Your task to perform on an android device: open the mobile data screen to see how much data has been used Image 0: 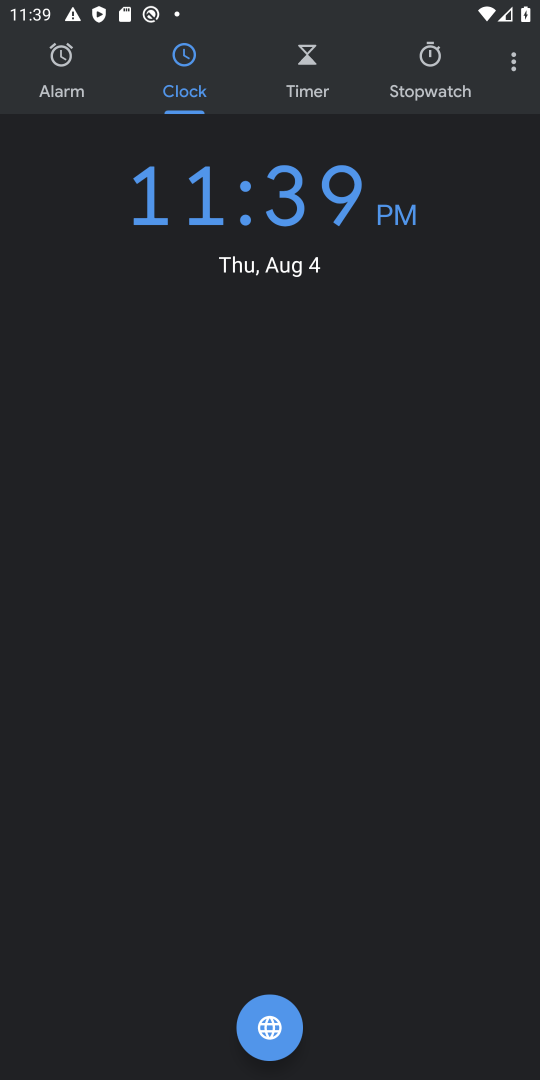
Step 0: press home button
Your task to perform on an android device: open the mobile data screen to see how much data has been used Image 1: 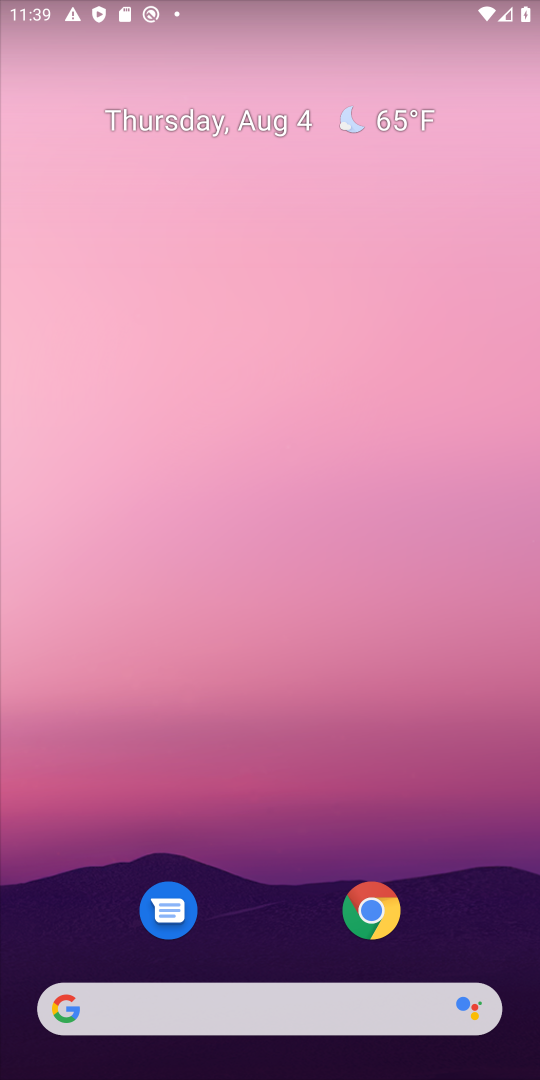
Step 1: drag from (261, 966) to (217, 428)
Your task to perform on an android device: open the mobile data screen to see how much data has been used Image 2: 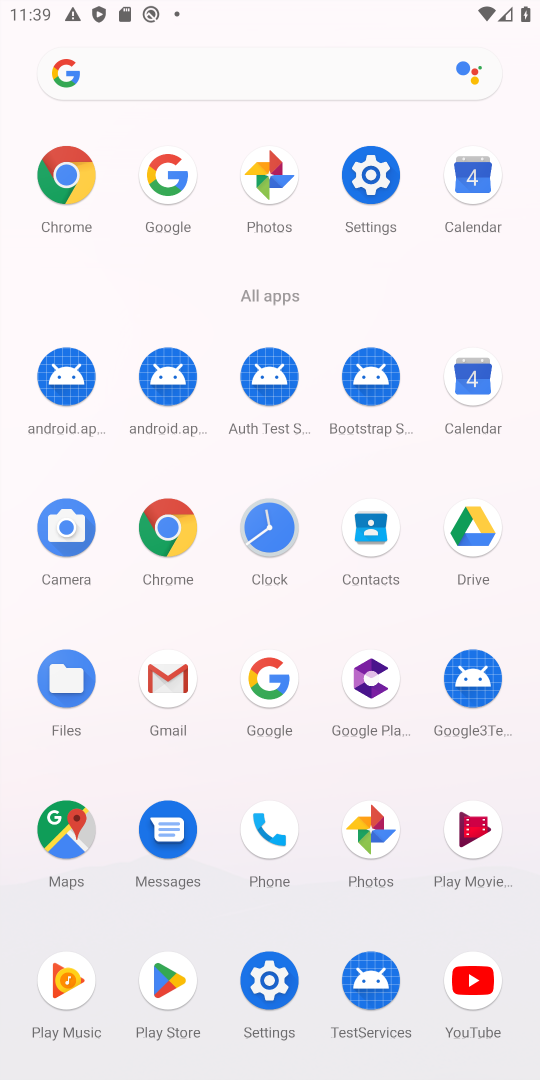
Step 2: click (363, 167)
Your task to perform on an android device: open the mobile data screen to see how much data has been used Image 3: 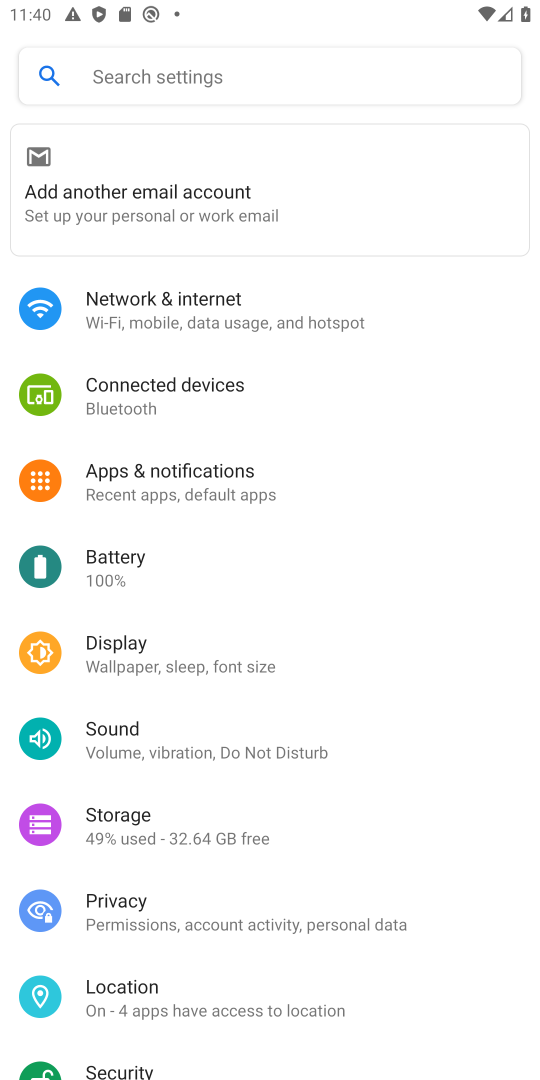
Step 3: click (167, 314)
Your task to perform on an android device: open the mobile data screen to see how much data has been used Image 4: 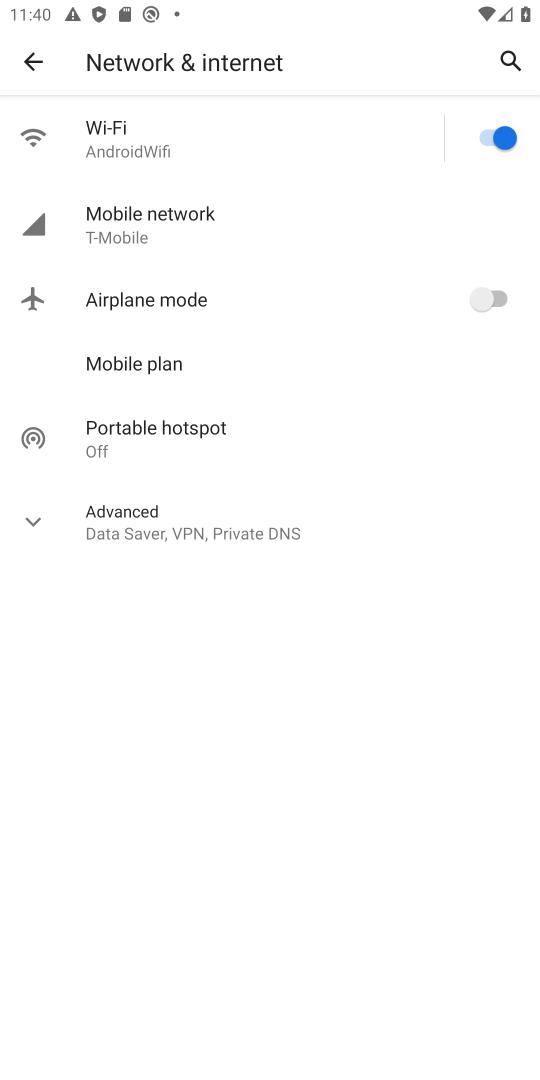
Step 4: click (176, 313)
Your task to perform on an android device: open the mobile data screen to see how much data has been used Image 5: 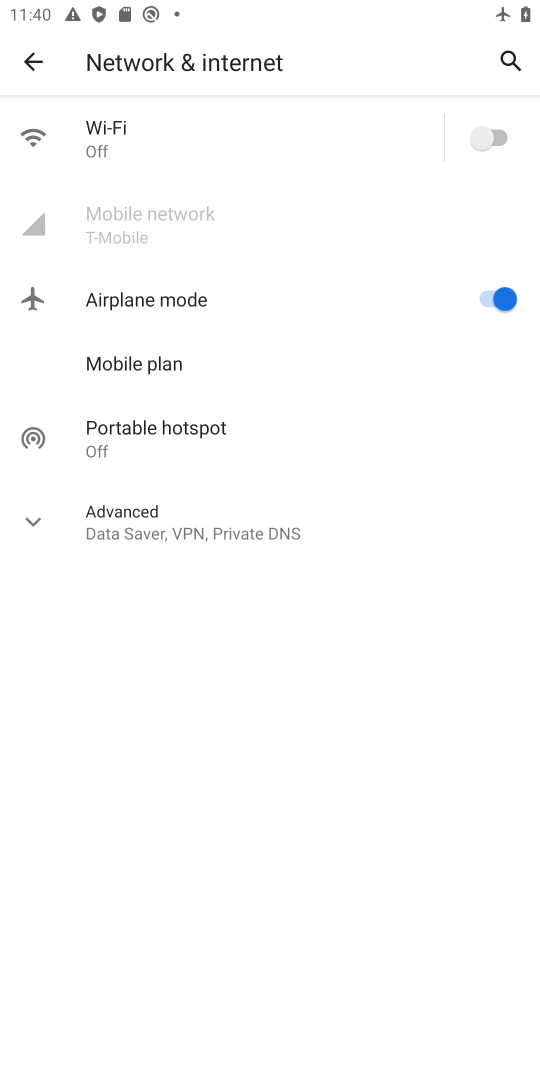
Step 5: click (495, 292)
Your task to perform on an android device: open the mobile data screen to see how much data has been used Image 6: 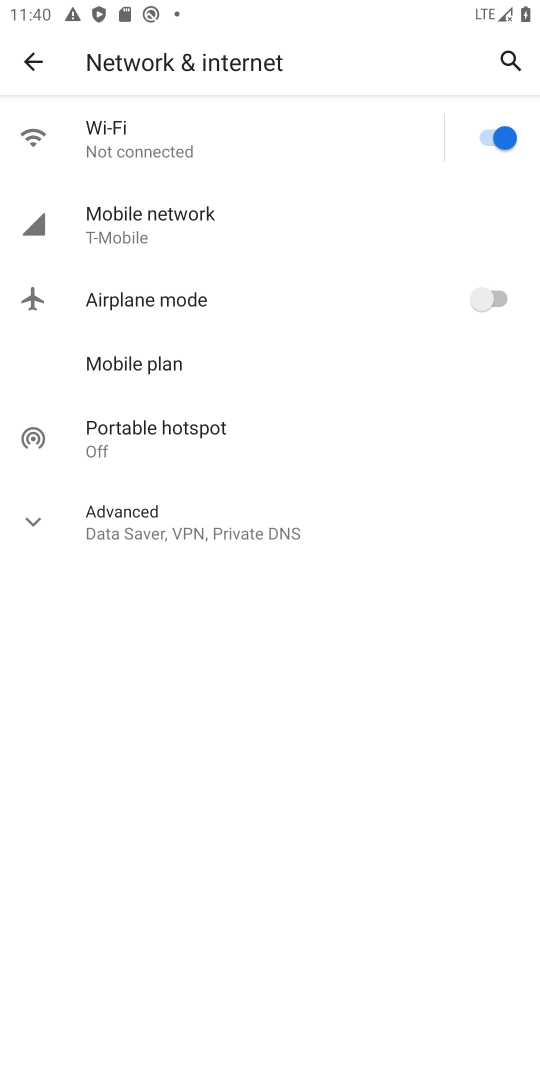
Step 6: click (176, 220)
Your task to perform on an android device: open the mobile data screen to see how much data has been used Image 7: 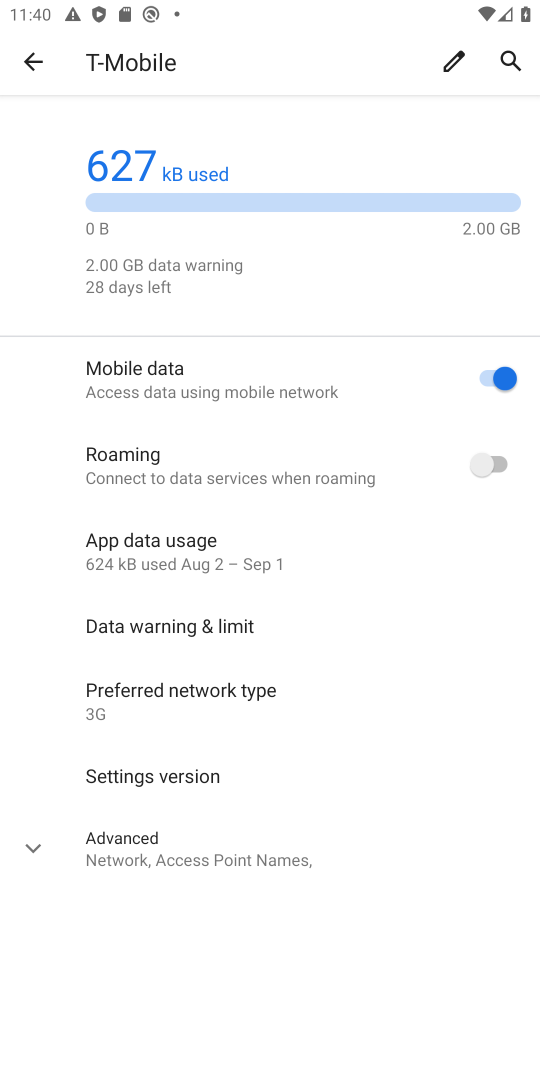
Step 7: task complete